Your task to perform on an android device: turn off improve location accuracy Image 0: 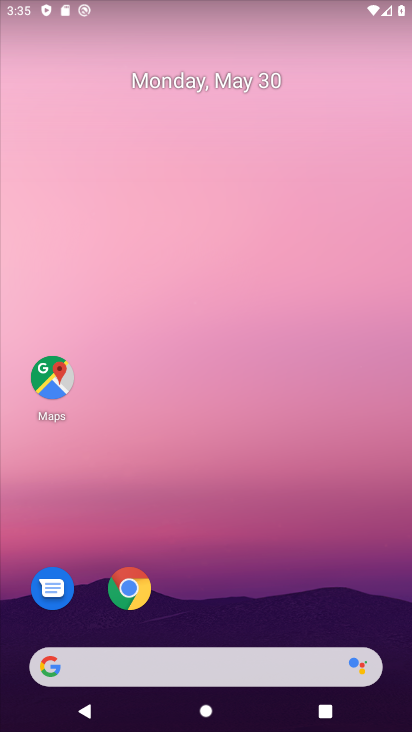
Step 0: drag from (349, 605) to (314, 128)
Your task to perform on an android device: turn off improve location accuracy Image 1: 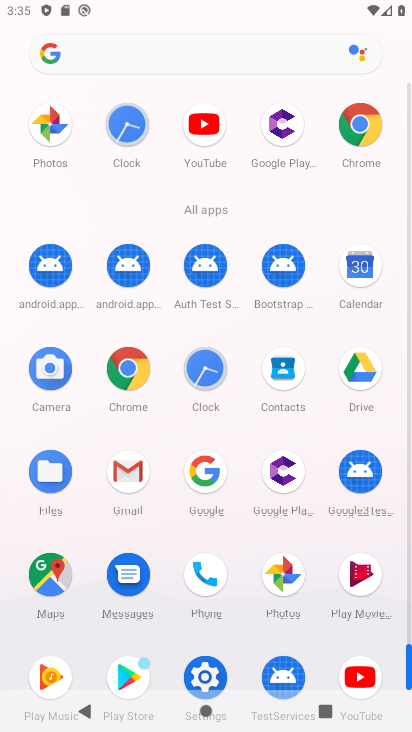
Step 1: click (206, 676)
Your task to perform on an android device: turn off improve location accuracy Image 2: 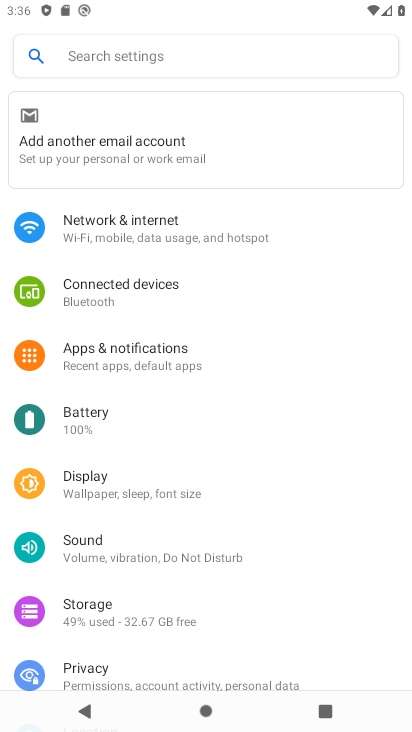
Step 2: drag from (223, 623) to (236, 156)
Your task to perform on an android device: turn off improve location accuracy Image 3: 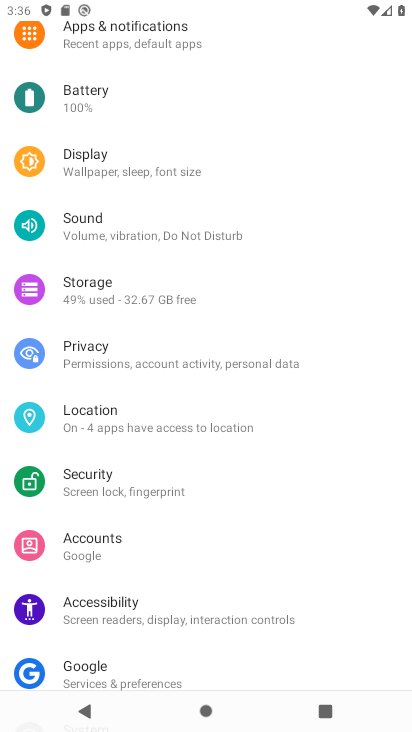
Step 3: click (91, 406)
Your task to perform on an android device: turn off improve location accuracy Image 4: 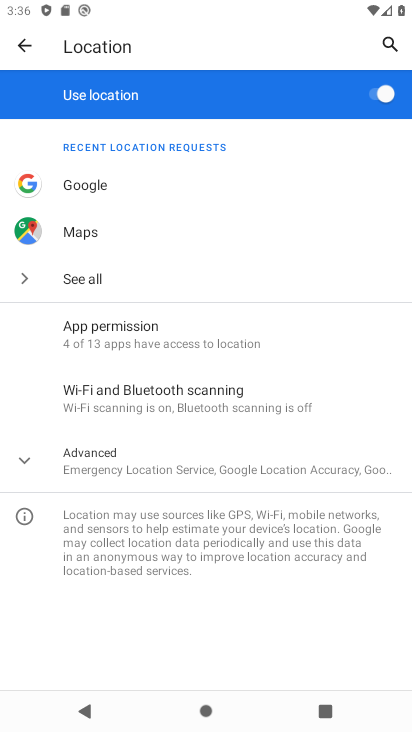
Step 4: click (15, 461)
Your task to perform on an android device: turn off improve location accuracy Image 5: 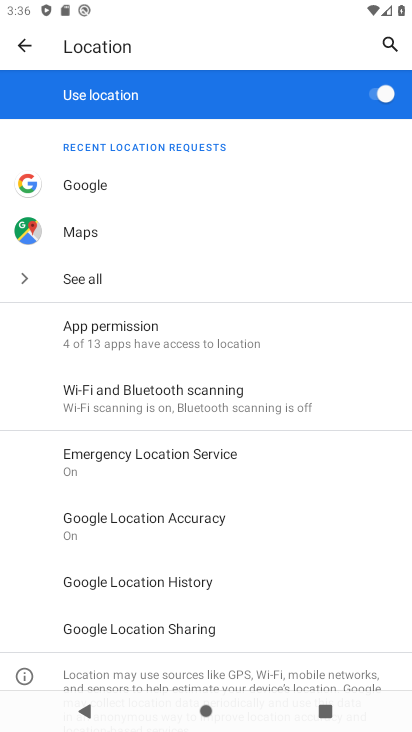
Step 5: click (132, 526)
Your task to perform on an android device: turn off improve location accuracy Image 6: 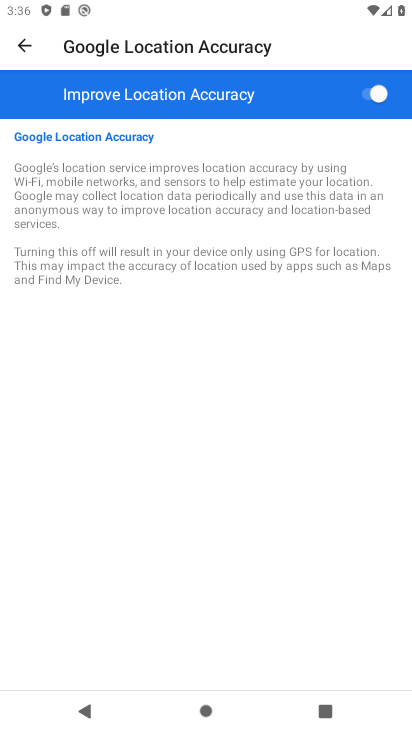
Step 6: click (363, 91)
Your task to perform on an android device: turn off improve location accuracy Image 7: 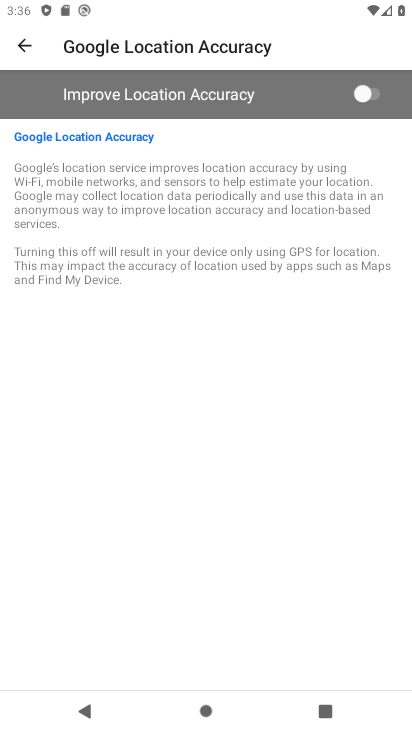
Step 7: task complete